Your task to perform on an android device: show emergency info Image 0: 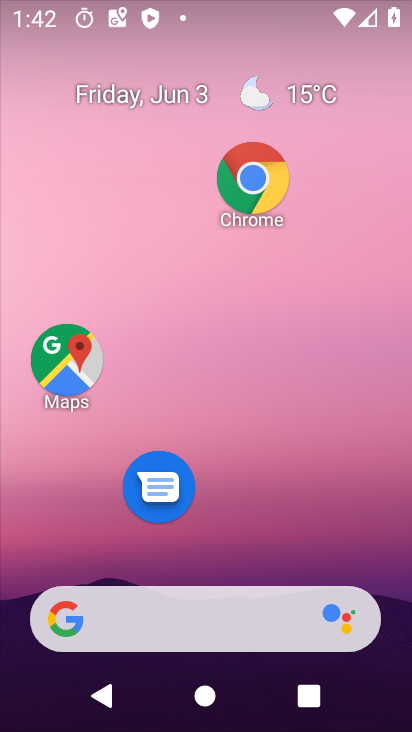
Step 0: press home button
Your task to perform on an android device: show emergency info Image 1: 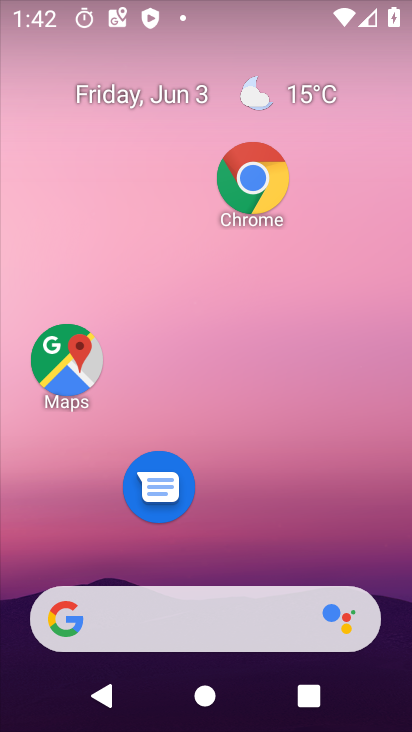
Step 1: drag from (217, 553) to (253, 60)
Your task to perform on an android device: show emergency info Image 2: 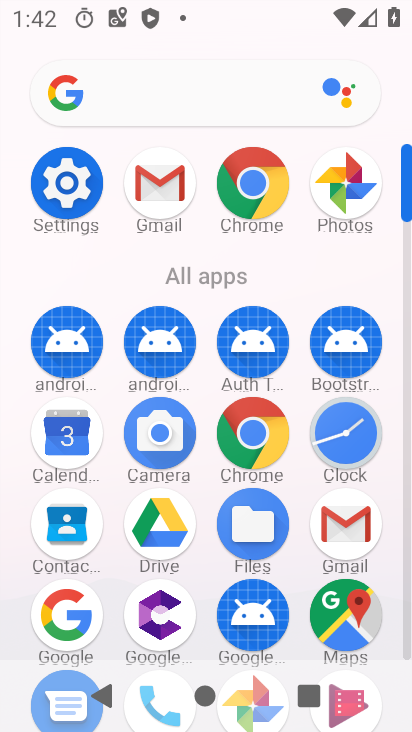
Step 2: click (62, 176)
Your task to perform on an android device: show emergency info Image 3: 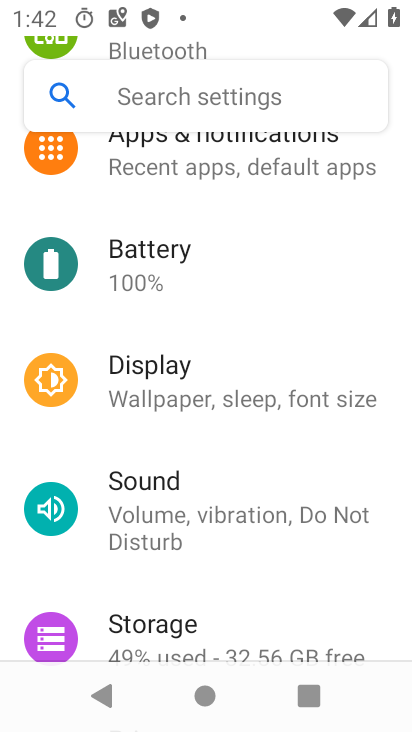
Step 3: drag from (230, 590) to (244, 118)
Your task to perform on an android device: show emergency info Image 4: 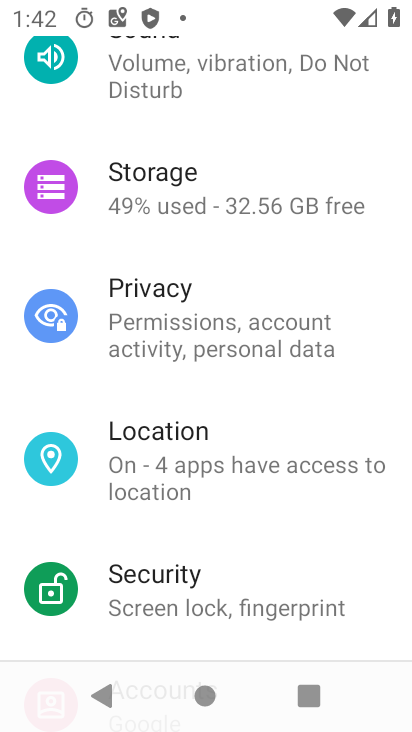
Step 4: drag from (219, 575) to (246, 119)
Your task to perform on an android device: show emergency info Image 5: 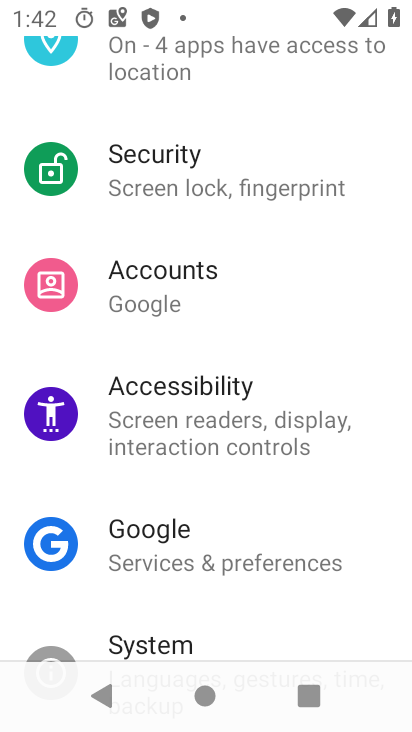
Step 5: drag from (222, 591) to (260, 154)
Your task to perform on an android device: show emergency info Image 6: 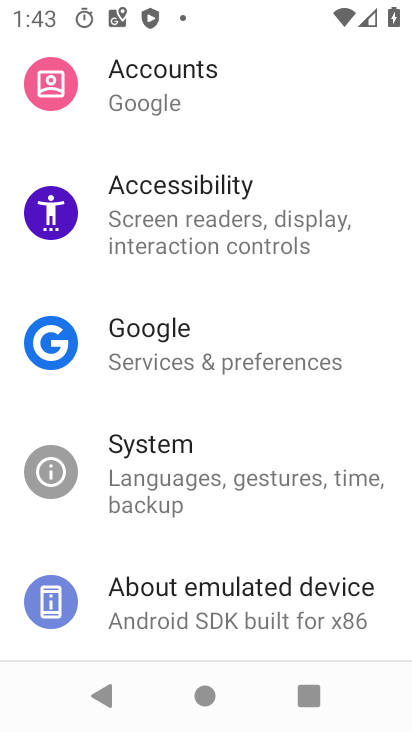
Step 6: click (186, 599)
Your task to perform on an android device: show emergency info Image 7: 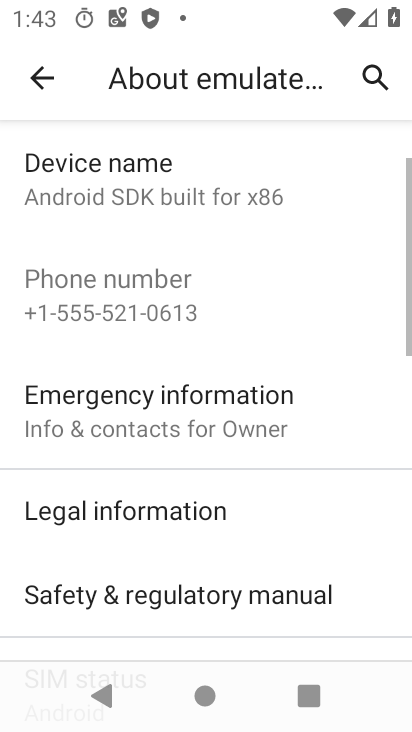
Step 7: click (250, 402)
Your task to perform on an android device: show emergency info Image 8: 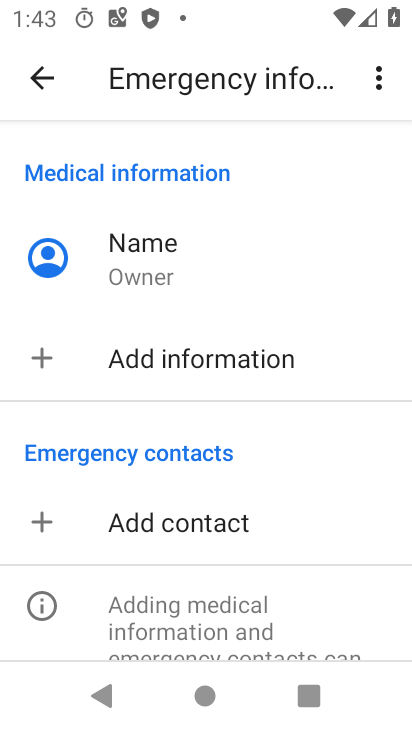
Step 8: task complete